Your task to perform on an android device: open device folders in google photos Image 0: 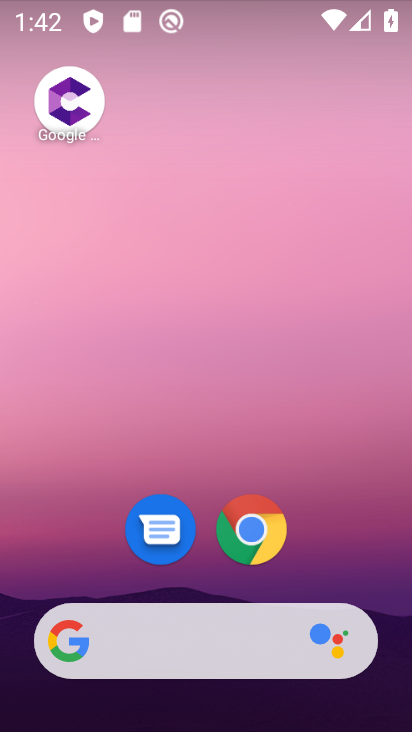
Step 0: drag from (200, 567) to (205, 76)
Your task to perform on an android device: open device folders in google photos Image 1: 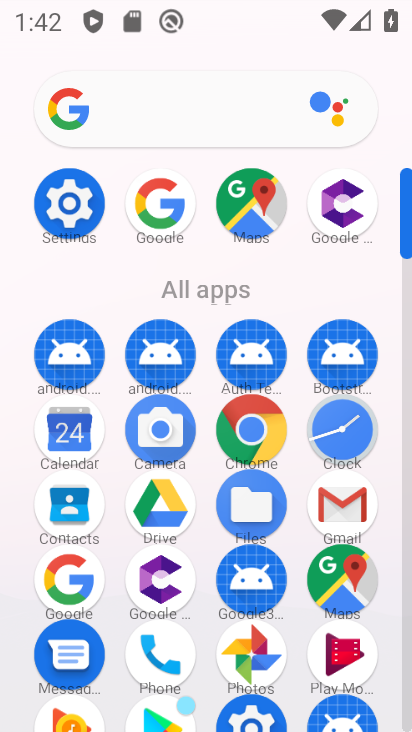
Step 1: click (250, 662)
Your task to perform on an android device: open device folders in google photos Image 2: 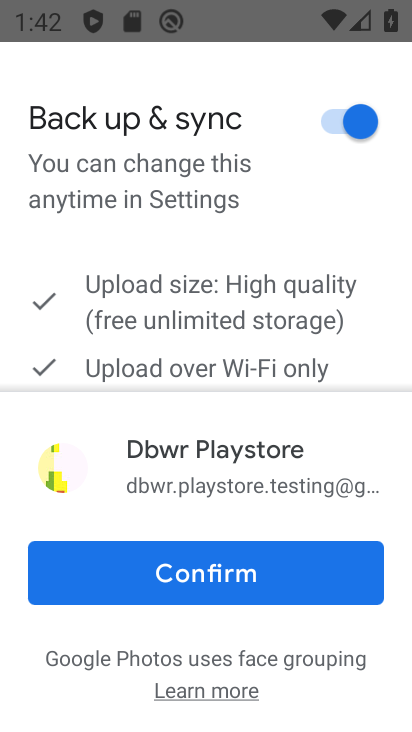
Step 2: click (239, 588)
Your task to perform on an android device: open device folders in google photos Image 3: 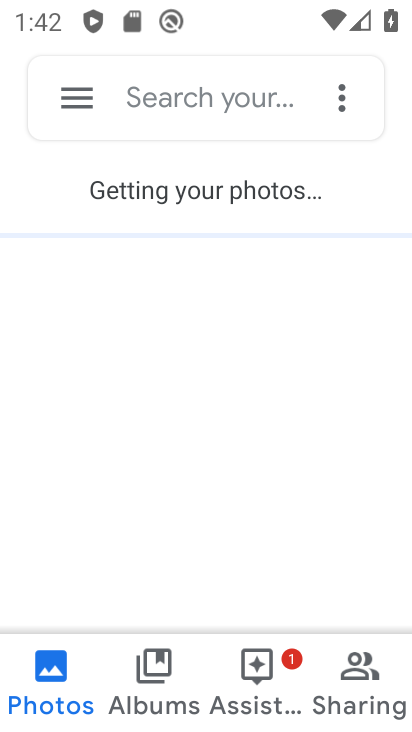
Step 3: click (79, 101)
Your task to perform on an android device: open device folders in google photos Image 4: 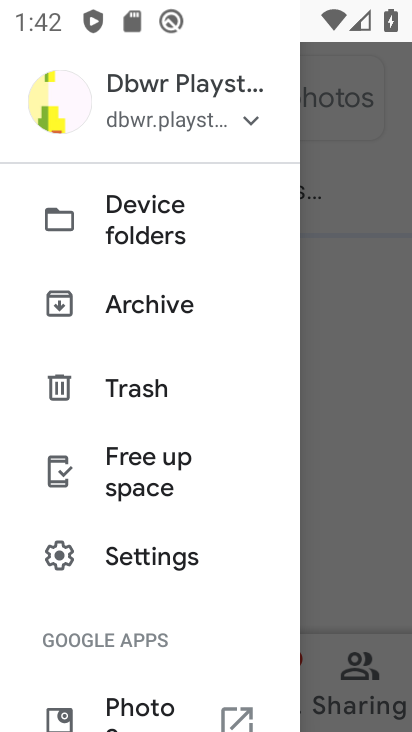
Step 4: click (130, 210)
Your task to perform on an android device: open device folders in google photos Image 5: 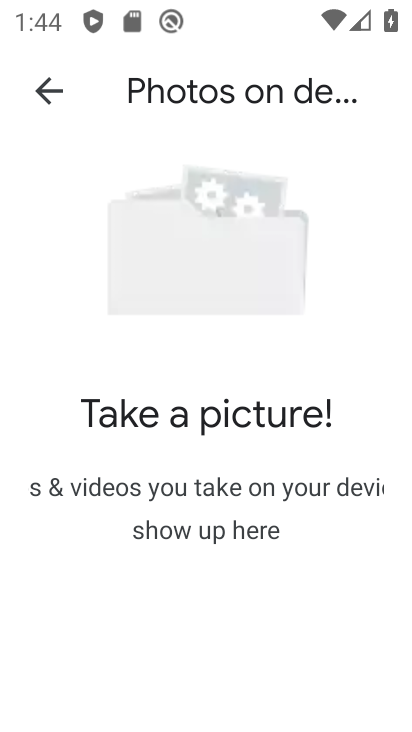
Step 5: task complete